Your task to perform on an android device: Go to settings Image 0: 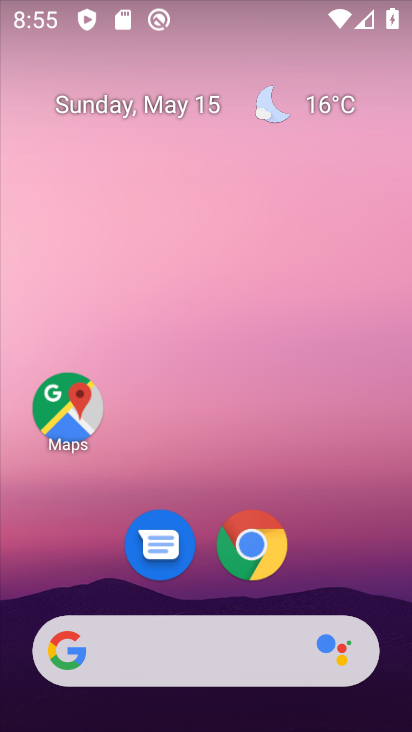
Step 0: drag from (349, 566) to (235, 221)
Your task to perform on an android device: Go to settings Image 1: 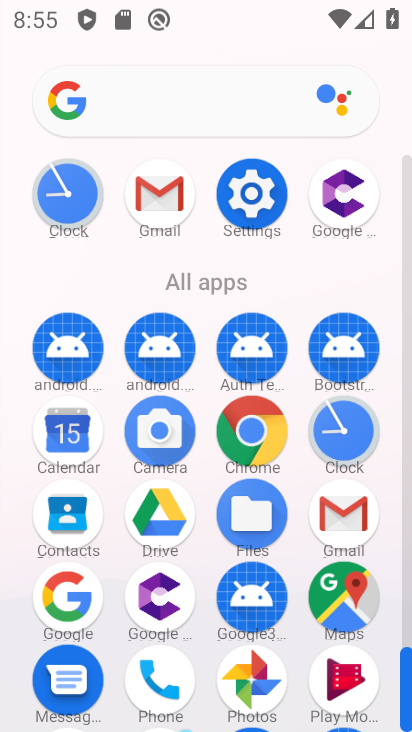
Step 1: click (252, 193)
Your task to perform on an android device: Go to settings Image 2: 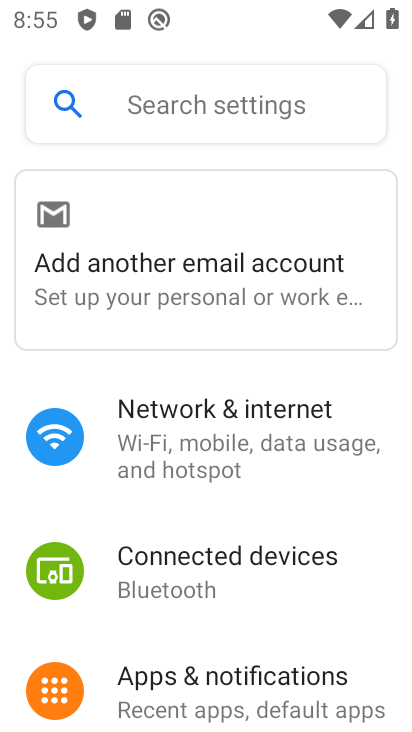
Step 2: task complete